Your task to perform on an android device: Go to Android settings Image 0: 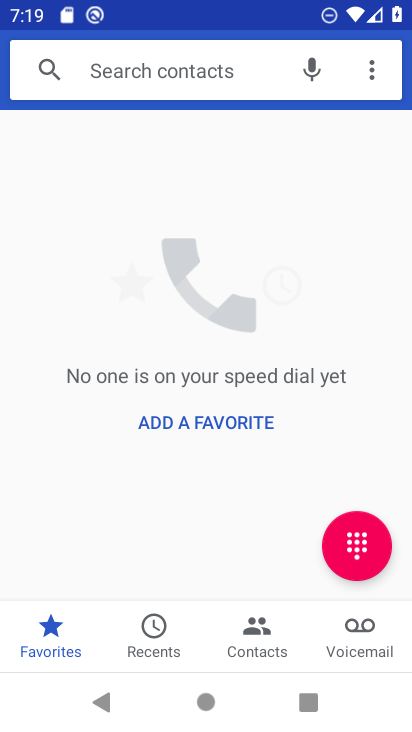
Step 0: press home button
Your task to perform on an android device: Go to Android settings Image 1: 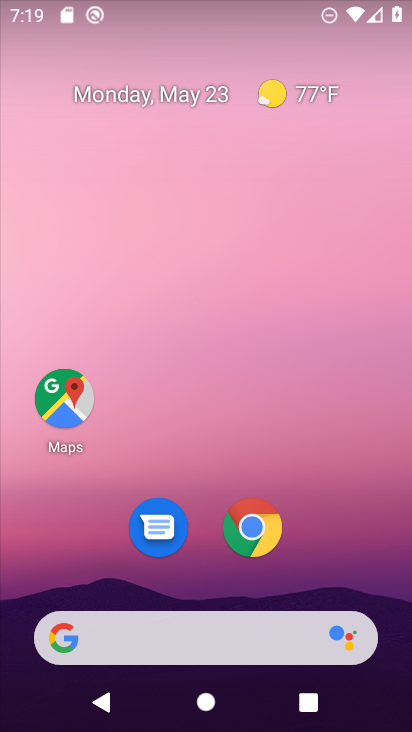
Step 1: drag from (255, 651) to (211, 294)
Your task to perform on an android device: Go to Android settings Image 2: 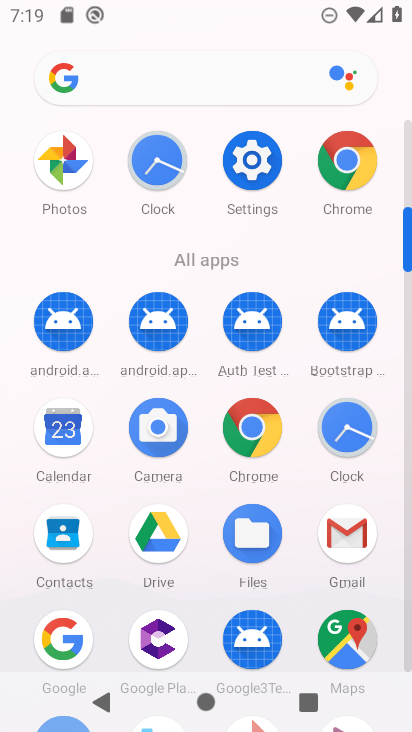
Step 2: click (256, 188)
Your task to perform on an android device: Go to Android settings Image 3: 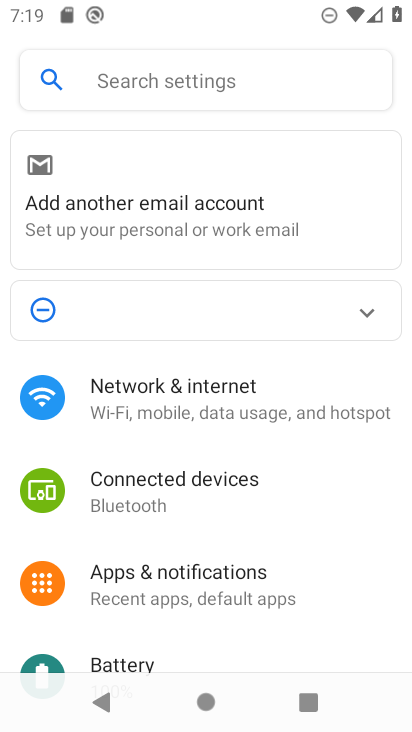
Step 3: click (144, 79)
Your task to perform on an android device: Go to Android settings Image 4: 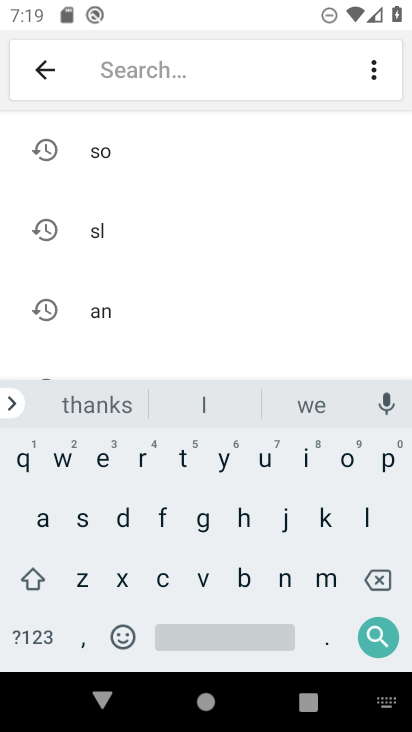
Step 4: click (33, 515)
Your task to perform on an android device: Go to Android settings Image 5: 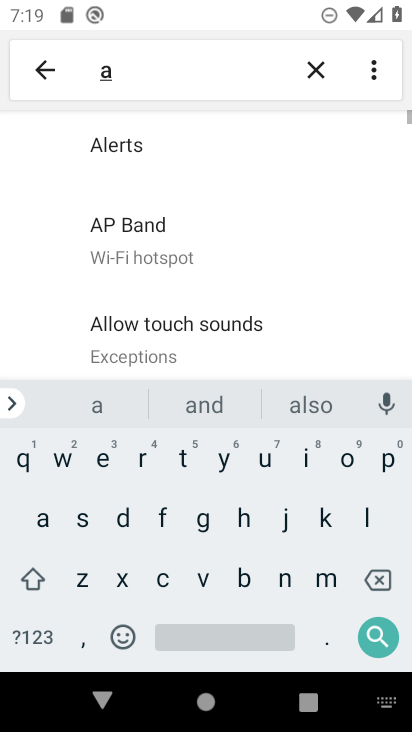
Step 5: click (279, 584)
Your task to perform on an android device: Go to Android settings Image 6: 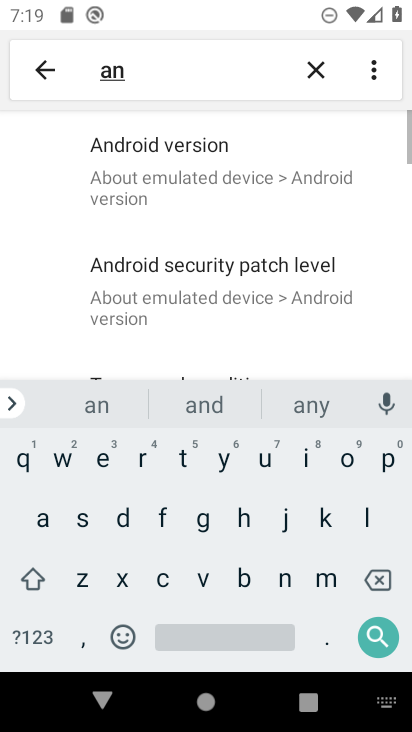
Step 6: click (214, 164)
Your task to perform on an android device: Go to Android settings Image 7: 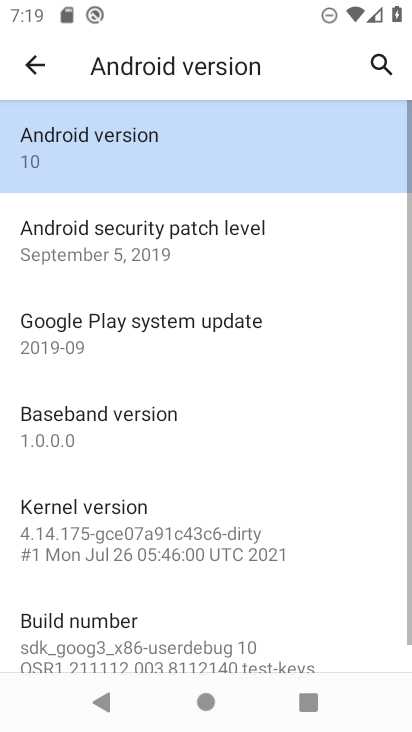
Step 7: click (157, 166)
Your task to perform on an android device: Go to Android settings Image 8: 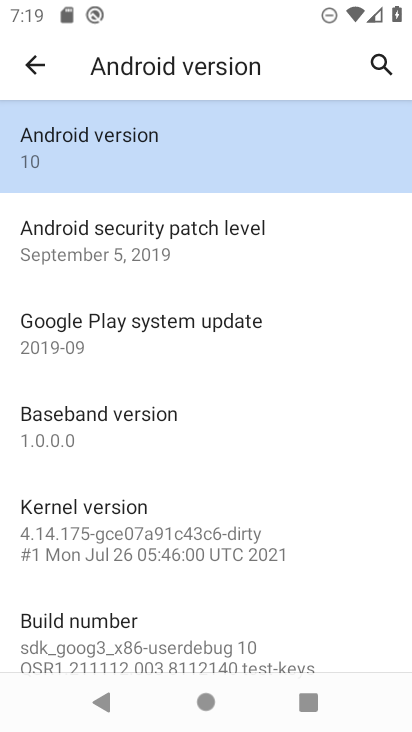
Step 8: task complete